Your task to perform on an android device: star an email in the gmail app Image 0: 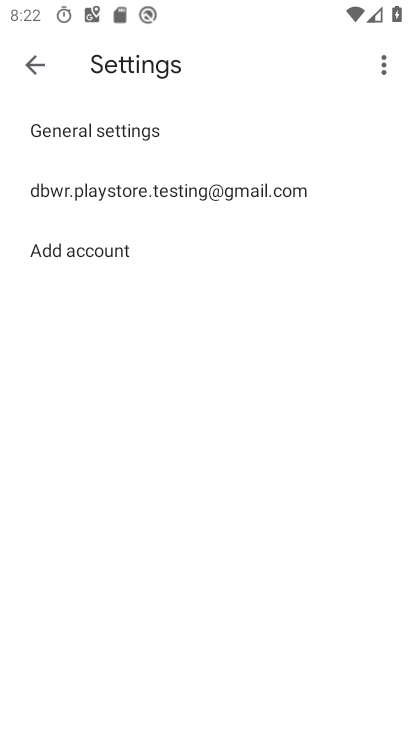
Step 0: press home button
Your task to perform on an android device: star an email in the gmail app Image 1: 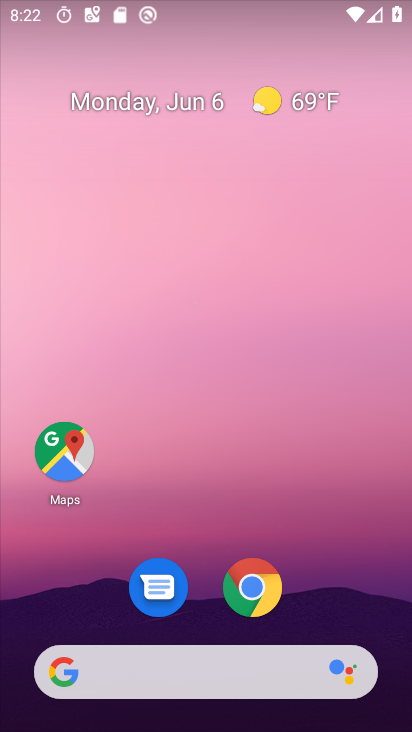
Step 1: drag from (328, 553) to (315, 179)
Your task to perform on an android device: star an email in the gmail app Image 2: 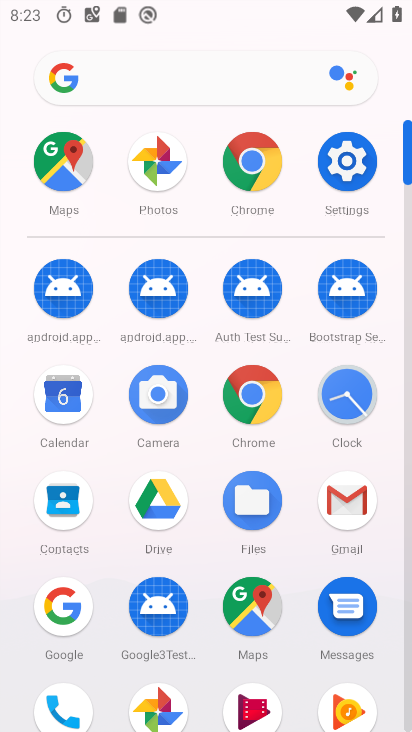
Step 2: click (361, 528)
Your task to perform on an android device: star an email in the gmail app Image 3: 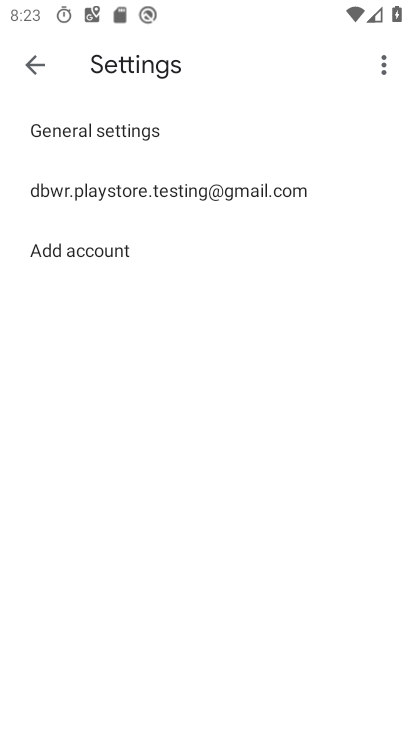
Step 3: click (257, 190)
Your task to perform on an android device: star an email in the gmail app Image 4: 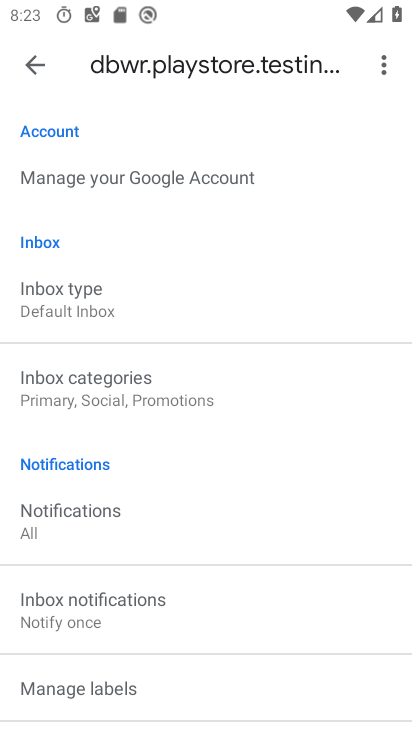
Step 4: task complete